Your task to perform on an android device: Set the phone to "Do not disturb". Image 0: 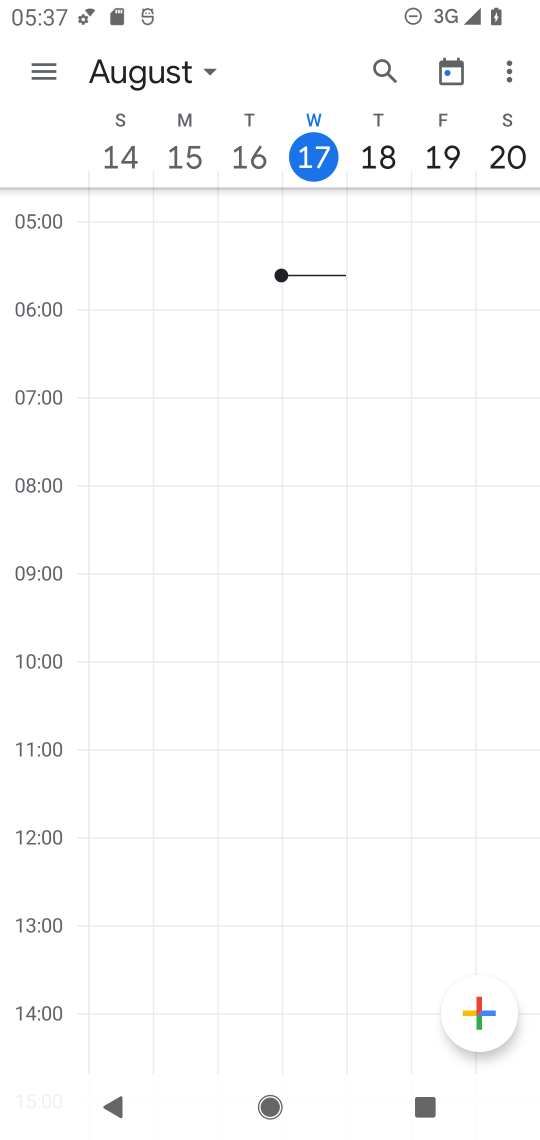
Step 0: press home button
Your task to perform on an android device: Set the phone to "Do not disturb". Image 1: 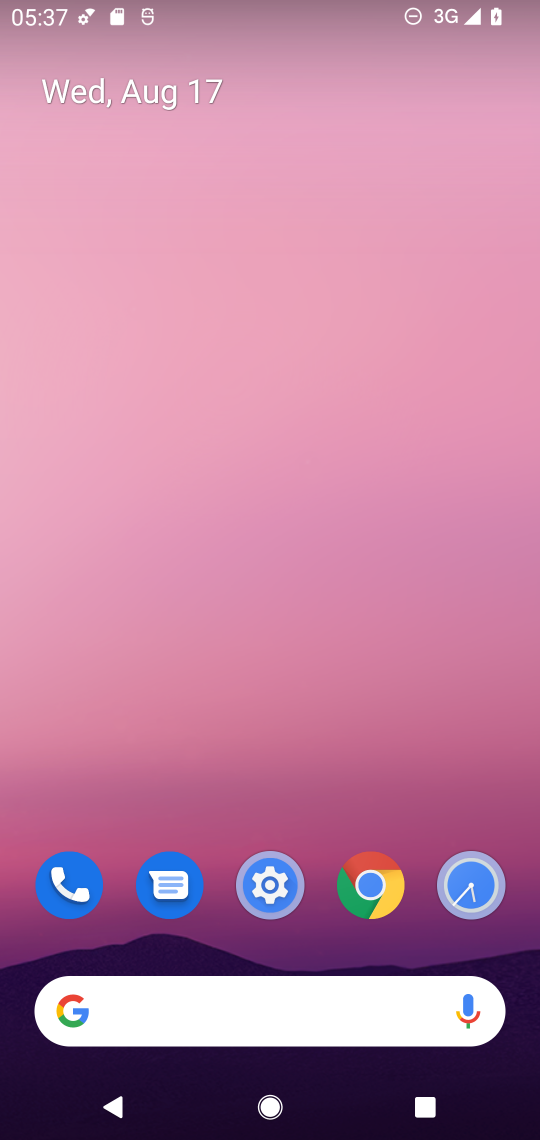
Step 1: task complete